Your task to perform on an android device: snooze an email in the gmail app Image 0: 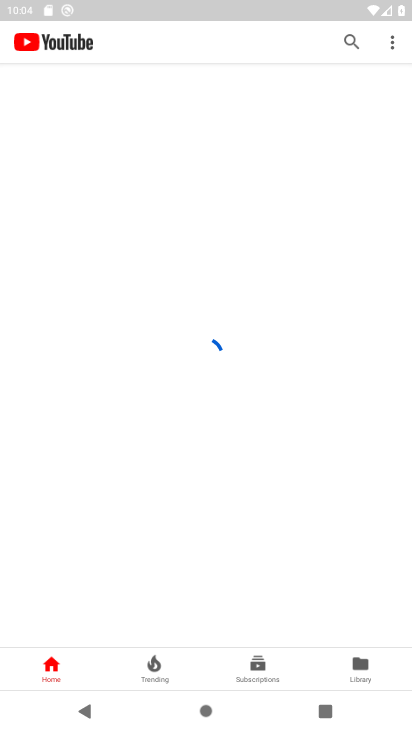
Step 0: drag from (177, 491) to (99, 167)
Your task to perform on an android device: snooze an email in the gmail app Image 1: 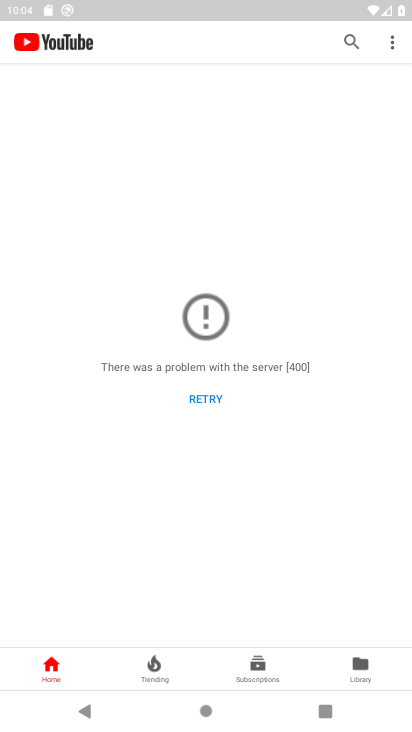
Step 1: press back button
Your task to perform on an android device: snooze an email in the gmail app Image 2: 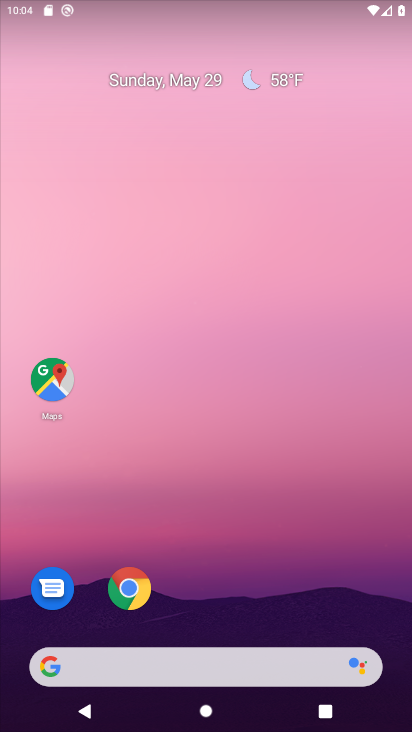
Step 2: drag from (237, 622) to (158, 140)
Your task to perform on an android device: snooze an email in the gmail app Image 3: 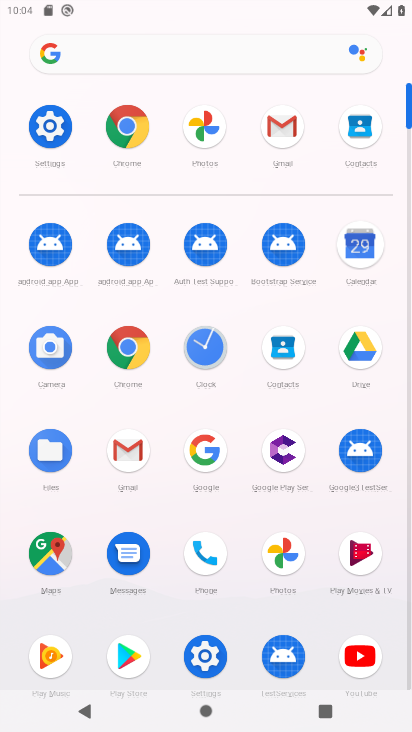
Step 3: click (121, 443)
Your task to perform on an android device: snooze an email in the gmail app Image 4: 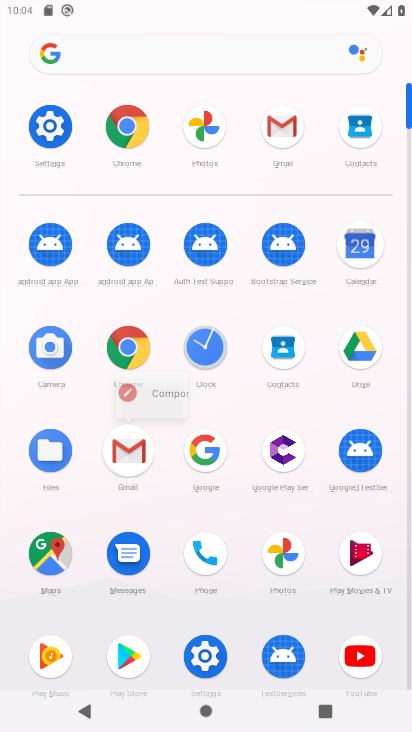
Step 4: click (131, 449)
Your task to perform on an android device: snooze an email in the gmail app Image 5: 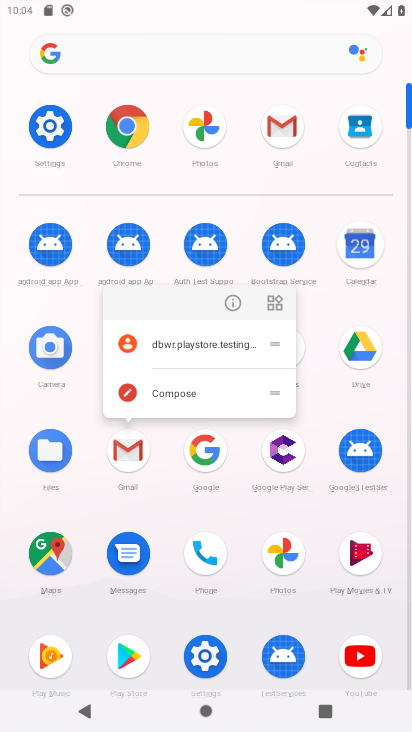
Step 5: click (128, 430)
Your task to perform on an android device: snooze an email in the gmail app Image 6: 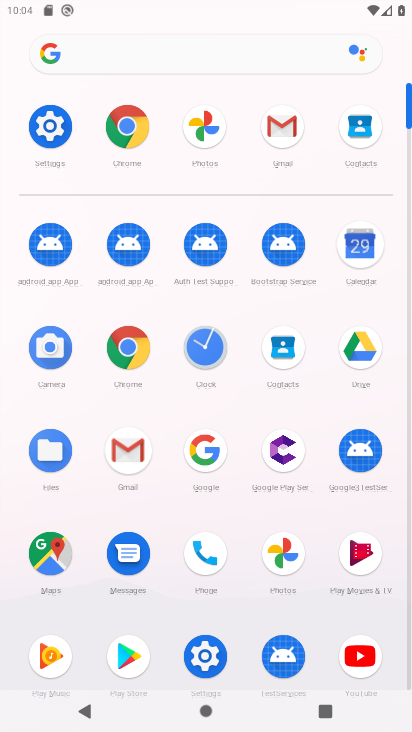
Step 6: click (129, 432)
Your task to perform on an android device: snooze an email in the gmail app Image 7: 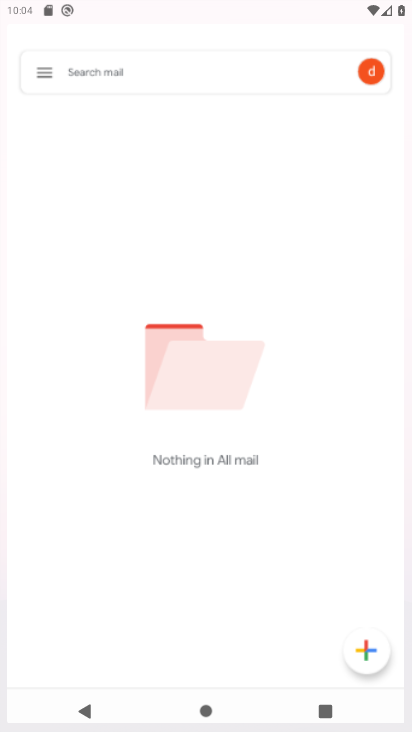
Step 7: click (130, 432)
Your task to perform on an android device: snooze an email in the gmail app Image 8: 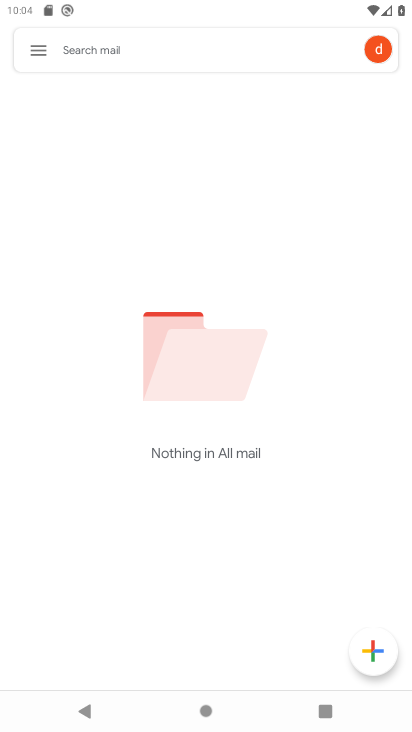
Step 8: click (44, 55)
Your task to perform on an android device: snooze an email in the gmail app Image 9: 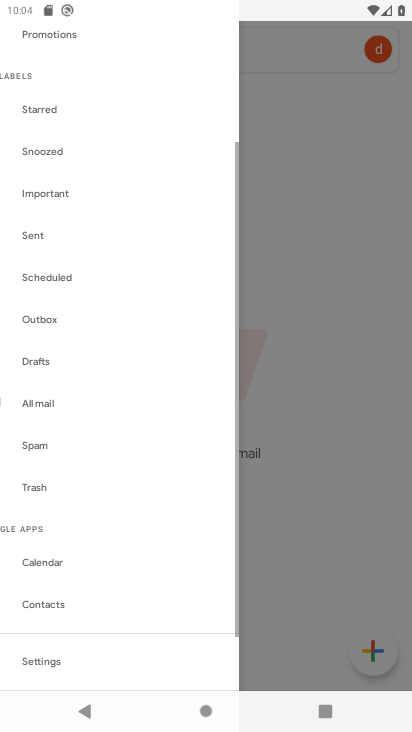
Step 9: click (44, 55)
Your task to perform on an android device: snooze an email in the gmail app Image 10: 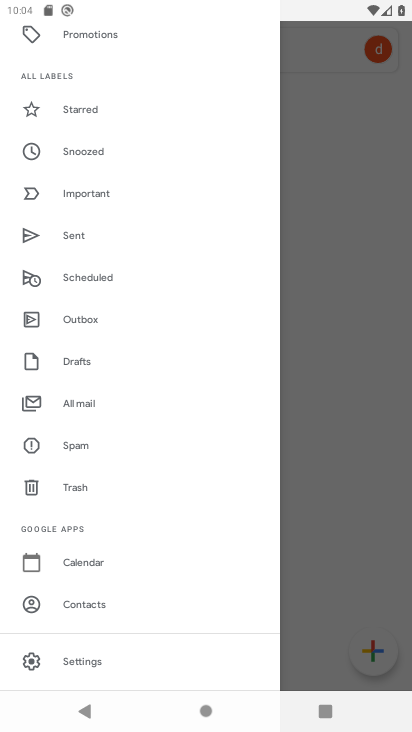
Step 10: click (76, 401)
Your task to perform on an android device: snooze an email in the gmail app Image 11: 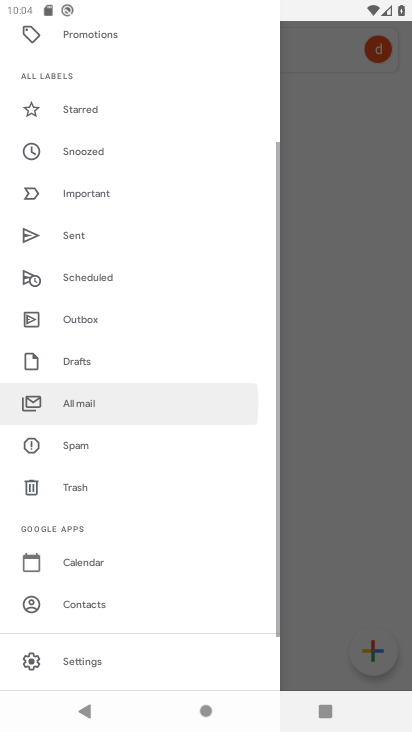
Step 11: click (78, 400)
Your task to perform on an android device: snooze an email in the gmail app Image 12: 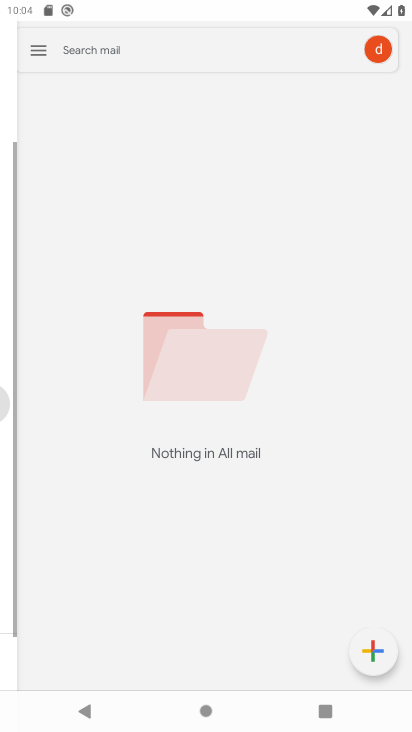
Step 12: click (79, 399)
Your task to perform on an android device: snooze an email in the gmail app Image 13: 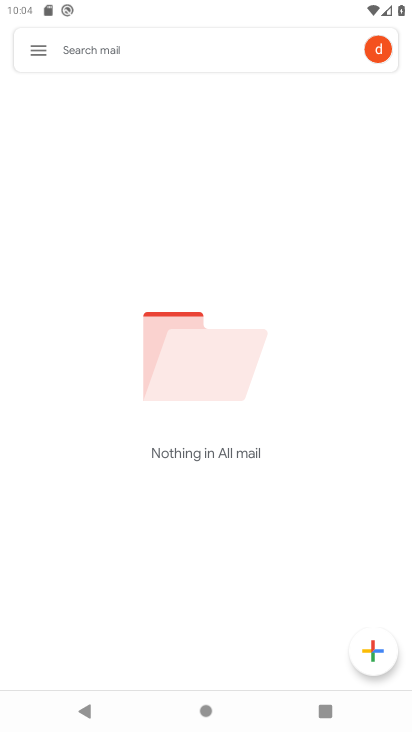
Step 13: click (79, 398)
Your task to perform on an android device: snooze an email in the gmail app Image 14: 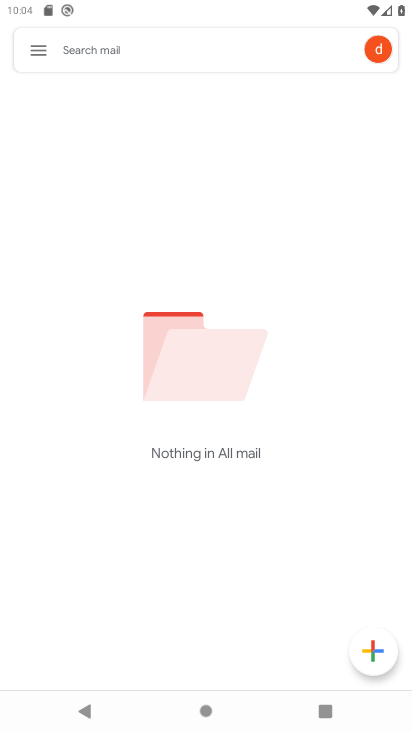
Step 14: task complete